Your task to perform on an android device: change keyboard looks Image 0: 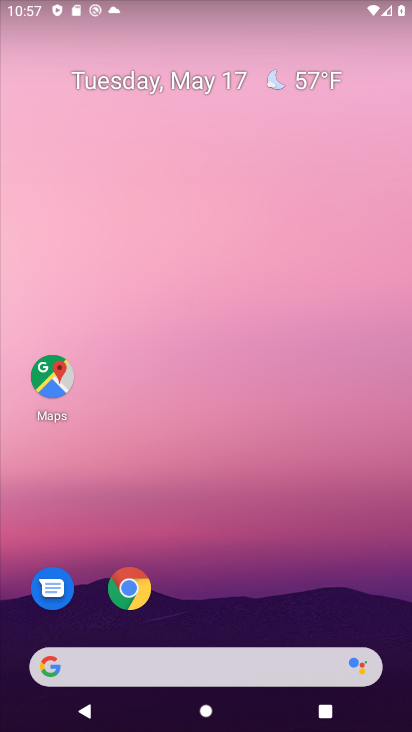
Step 0: drag from (243, 572) to (217, 80)
Your task to perform on an android device: change keyboard looks Image 1: 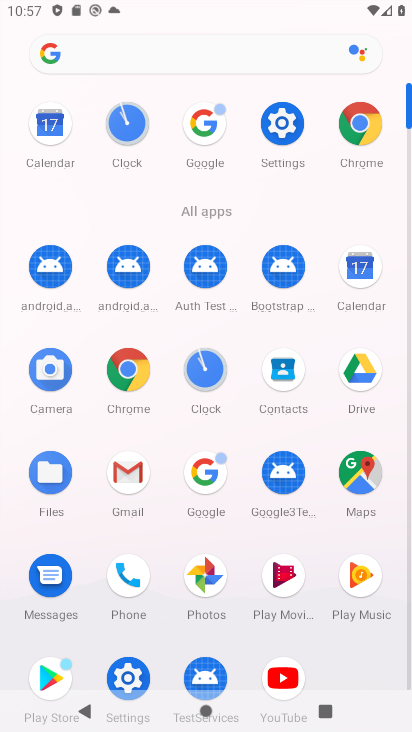
Step 1: click (280, 128)
Your task to perform on an android device: change keyboard looks Image 2: 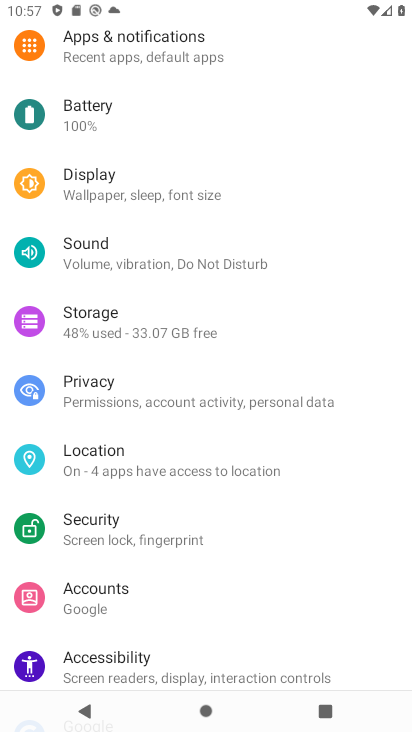
Step 2: drag from (166, 641) to (178, 227)
Your task to perform on an android device: change keyboard looks Image 3: 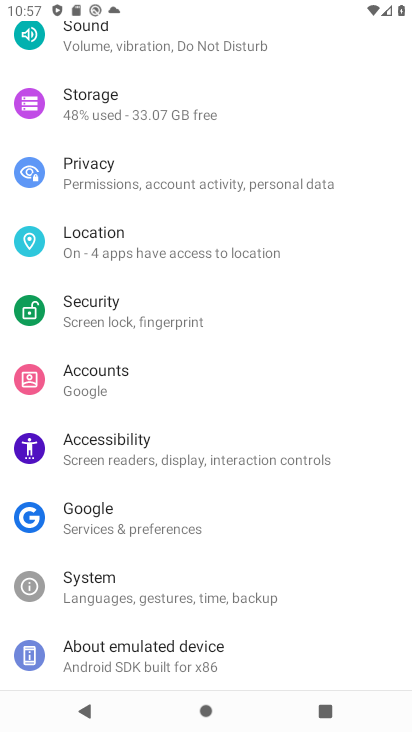
Step 3: click (177, 588)
Your task to perform on an android device: change keyboard looks Image 4: 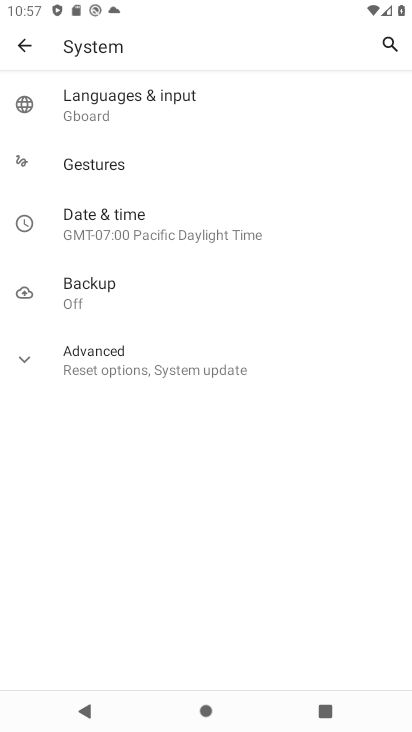
Step 4: click (123, 111)
Your task to perform on an android device: change keyboard looks Image 5: 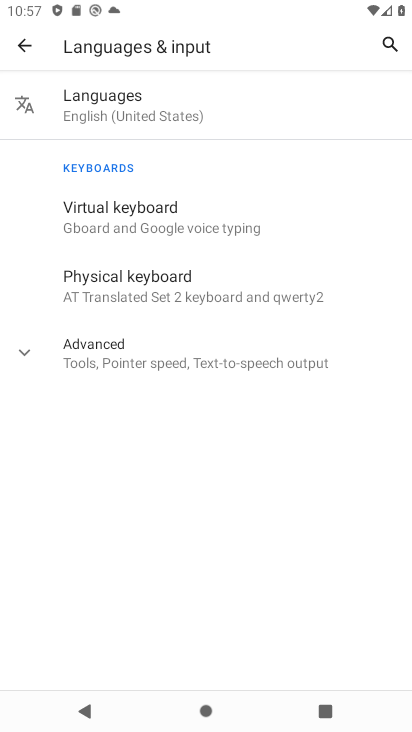
Step 5: click (135, 232)
Your task to perform on an android device: change keyboard looks Image 6: 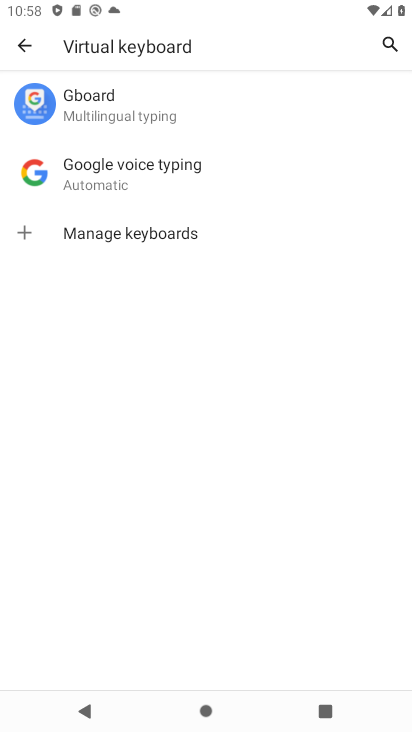
Step 6: click (128, 128)
Your task to perform on an android device: change keyboard looks Image 7: 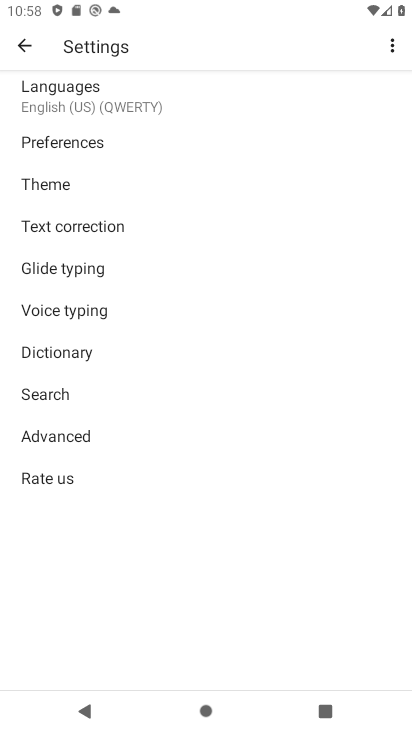
Step 7: click (58, 190)
Your task to perform on an android device: change keyboard looks Image 8: 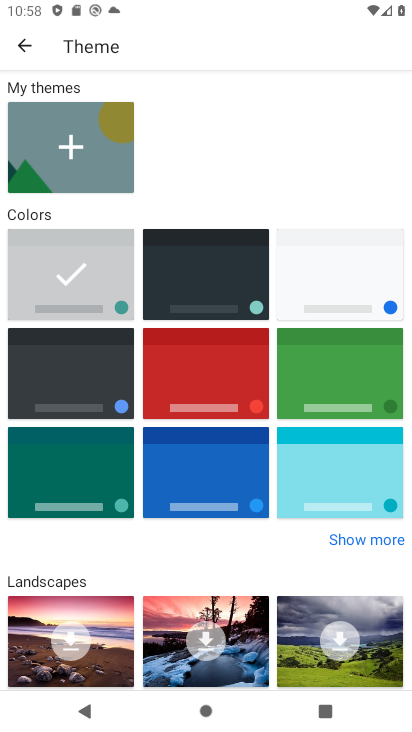
Step 8: click (229, 304)
Your task to perform on an android device: change keyboard looks Image 9: 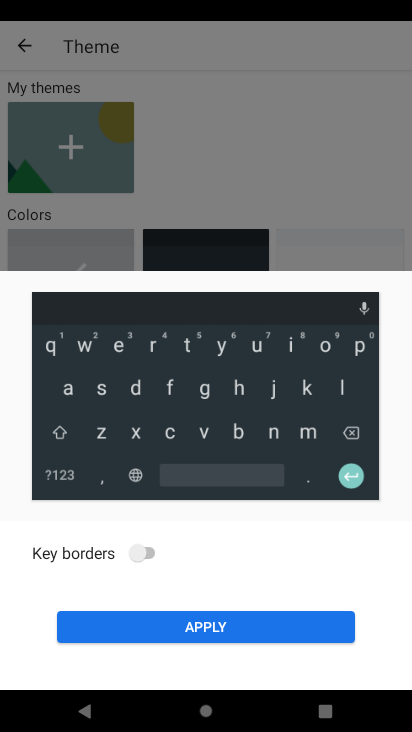
Step 9: click (200, 625)
Your task to perform on an android device: change keyboard looks Image 10: 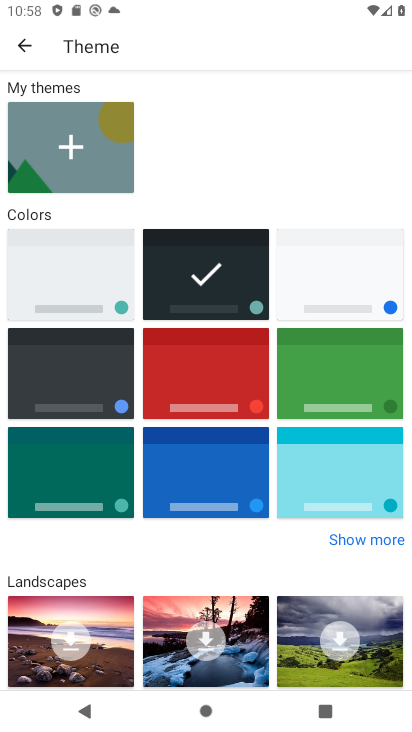
Step 10: task complete